Your task to perform on an android device: Open the Play Movies app and select the watchlist tab. Image 0: 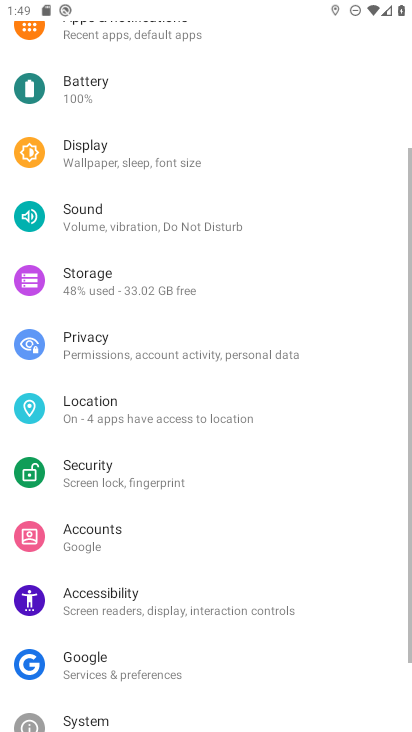
Step 0: press home button
Your task to perform on an android device: Open the Play Movies app and select the watchlist tab. Image 1: 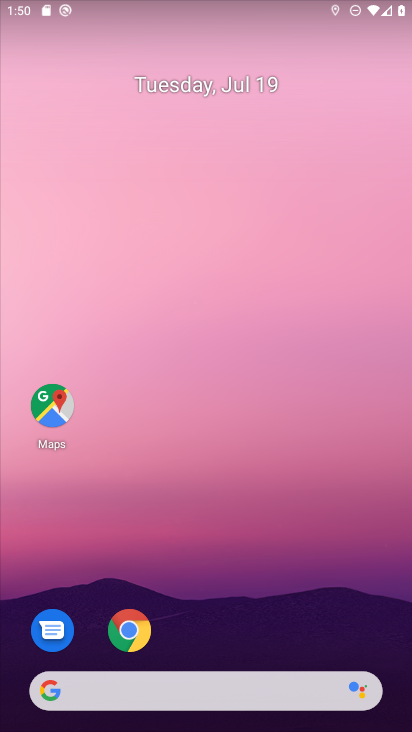
Step 1: drag from (212, 693) to (300, 145)
Your task to perform on an android device: Open the Play Movies app and select the watchlist tab. Image 2: 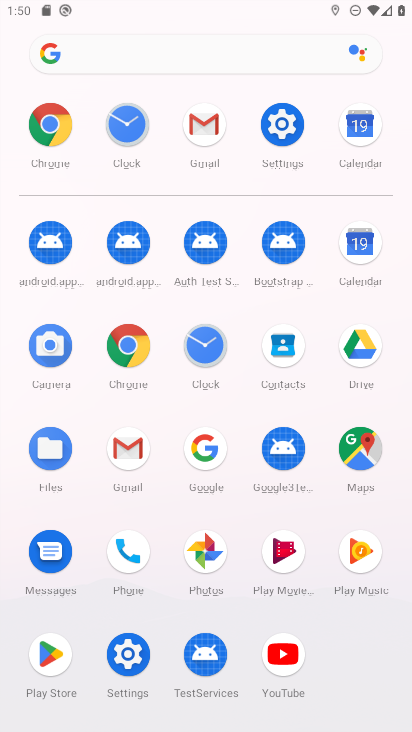
Step 2: click (283, 547)
Your task to perform on an android device: Open the Play Movies app and select the watchlist tab. Image 3: 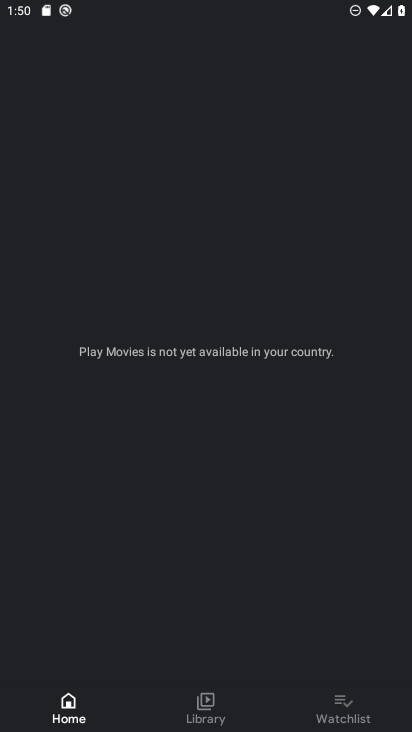
Step 3: click (348, 722)
Your task to perform on an android device: Open the Play Movies app and select the watchlist tab. Image 4: 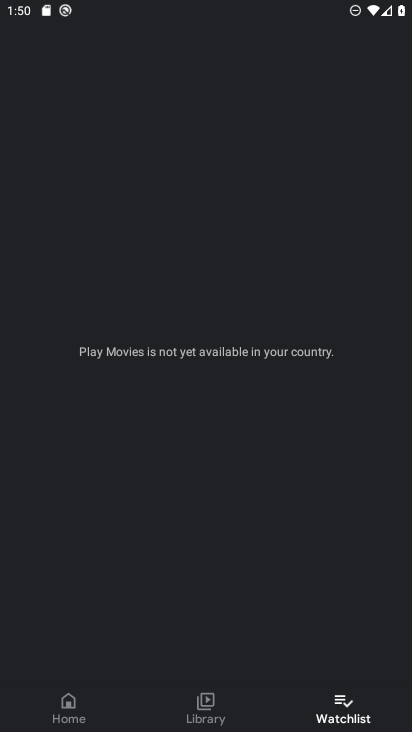
Step 4: task complete